Your task to perform on an android device: snooze an email in the gmail app Image 0: 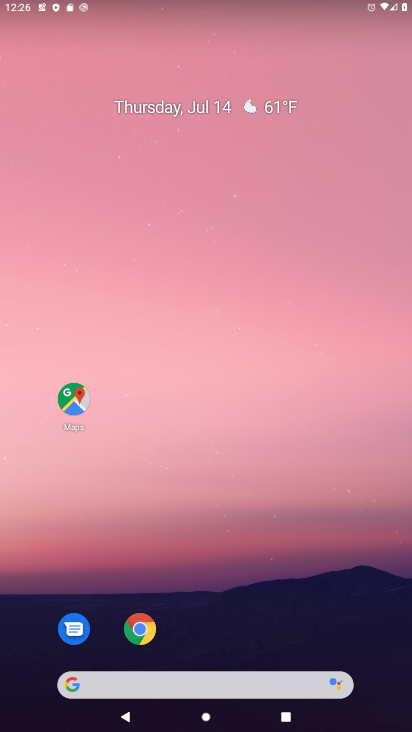
Step 0: drag from (255, 552) to (154, 113)
Your task to perform on an android device: snooze an email in the gmail app Image 1: 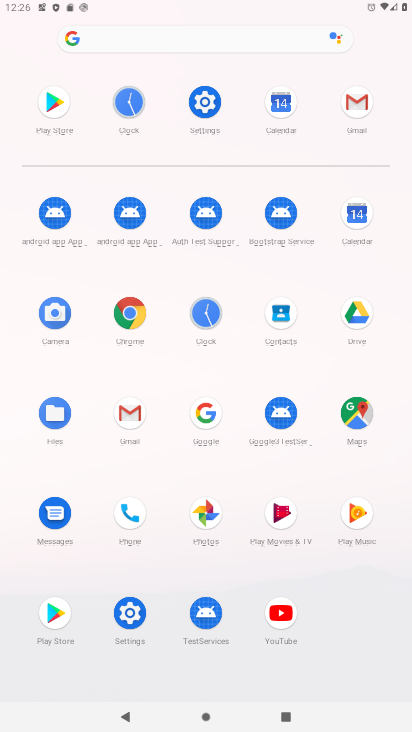
Step 1: click (130, 415)
Your task to perform on an android device: snooze an email in the gmail app Image 2: 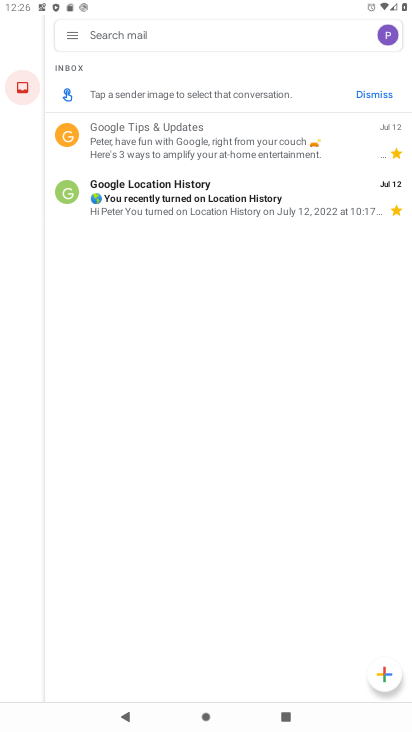
Step 2: click (142, 139)
Your task to perform on an android device: snooze an email in the gmail app Image 3: 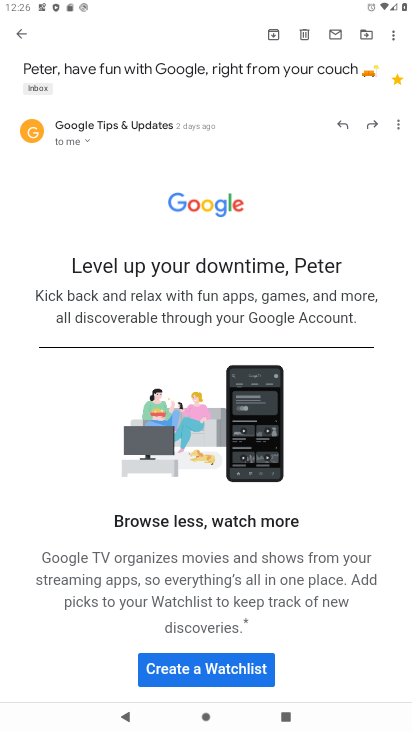
Step 3: click (397, 37)
Your task to perform on an android device: snooze an email in the gmail app Image 4: 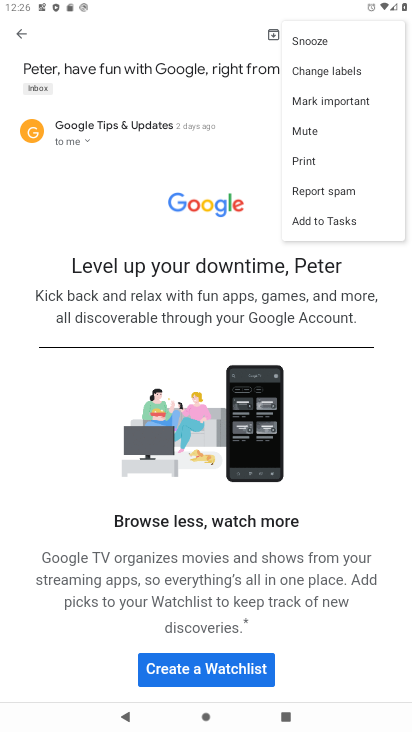
Step 4: click (308, 41)
Your task to perform on an android device: snooze an email in the gmail app Image 5: 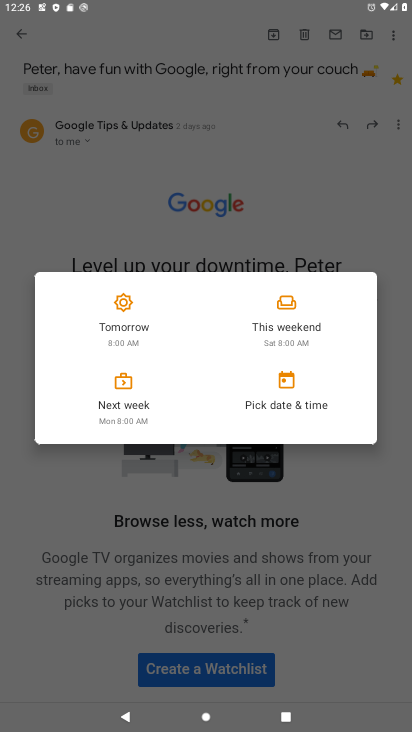
Step 5: click (123, 312)
Your task to perform on an android device: snooze an email in the gmail app Image 6: 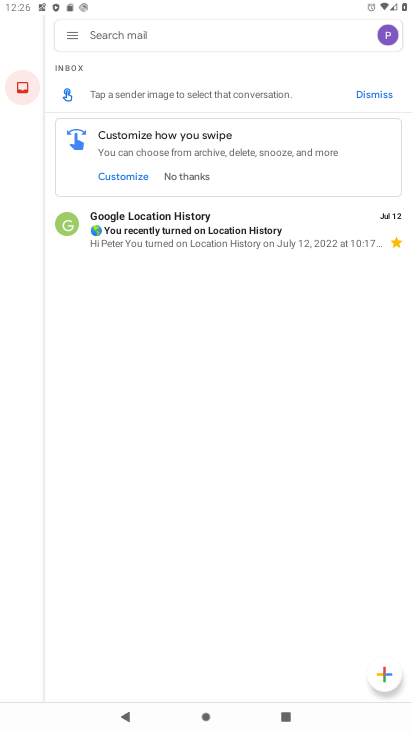
Step 6: task complete